Your task to perform on an android device: Go to notification settings Image 0: 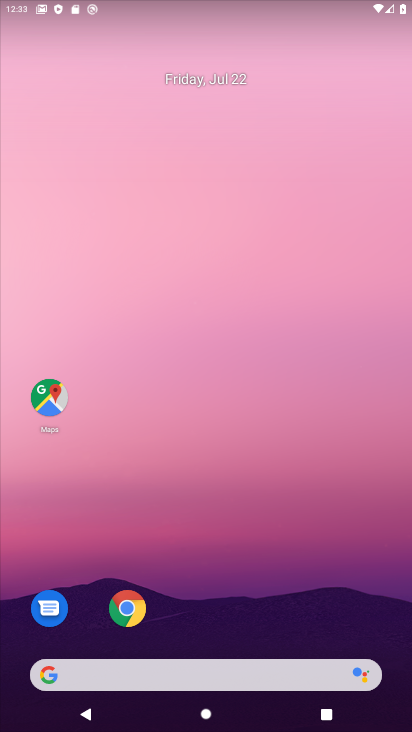
Step 0: drag from (394, 690) to (371, 133)
Your task to perform on an android device: Go to notification settings Image 1: 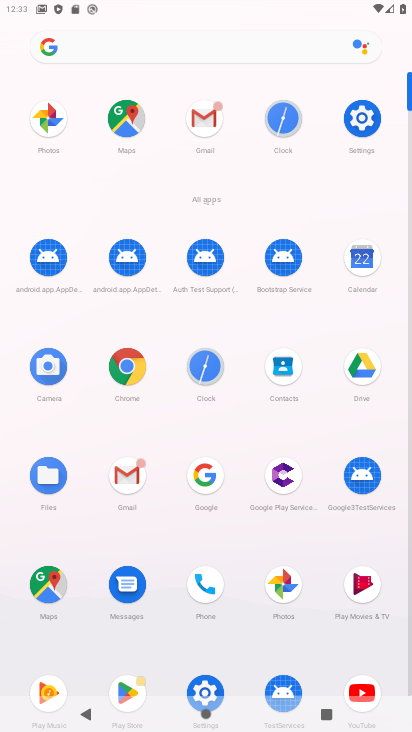
Step 1: click (364, 124)
Your task to perform on an android device: Go to notification settings Image 2: 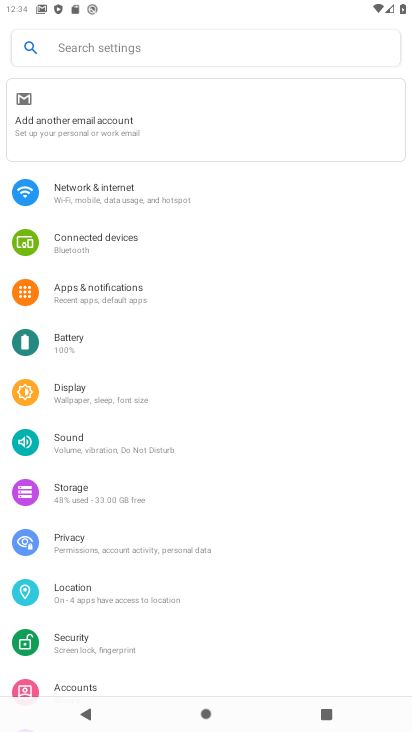
Step 2: click (86, 288)
Your task to perform on an android device: Go to notification settings Image 3: 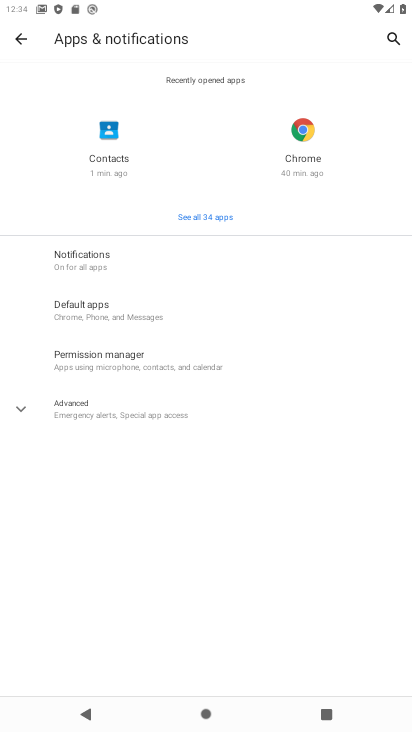
Step 3: click (73, 252)
Your task to perform on an android device: Go to notification settings Image 4: 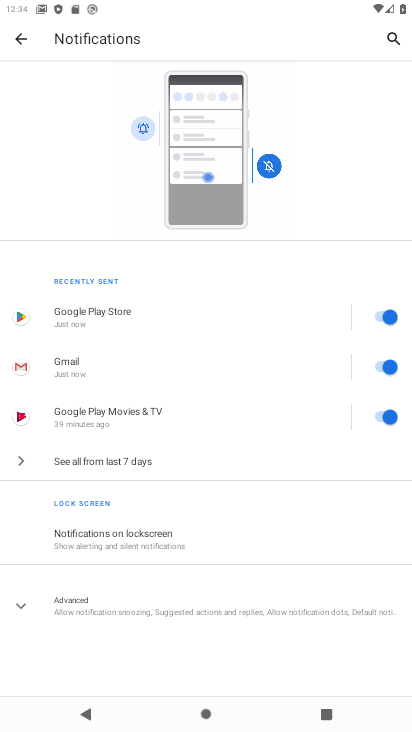
Step 4: click (23, 610)
Your task to perform on an android device: Go to notification settings Image 5: 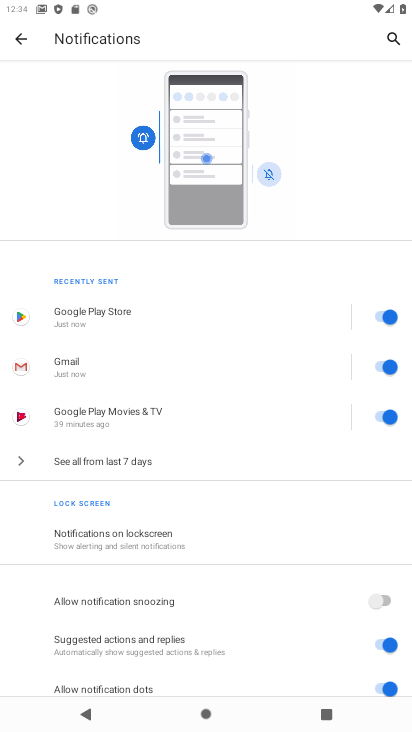
Step 5: task complete